Your task to perform on an android device: turn off picture-in-picture Image 0: 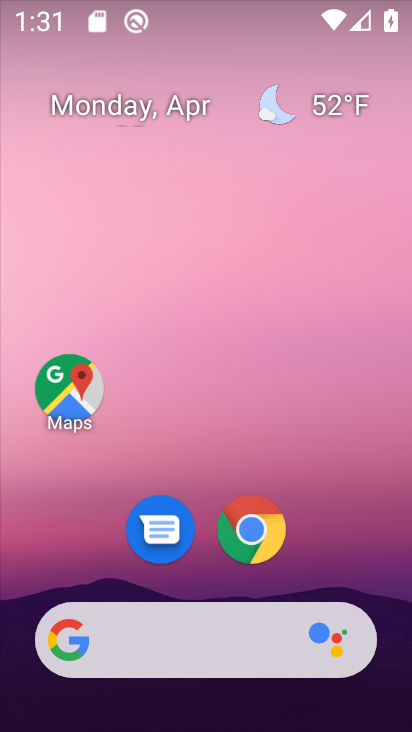
Step 0: click (246, 525)
Your task to perform on an android device: turn off picture-in-picture Image 1: 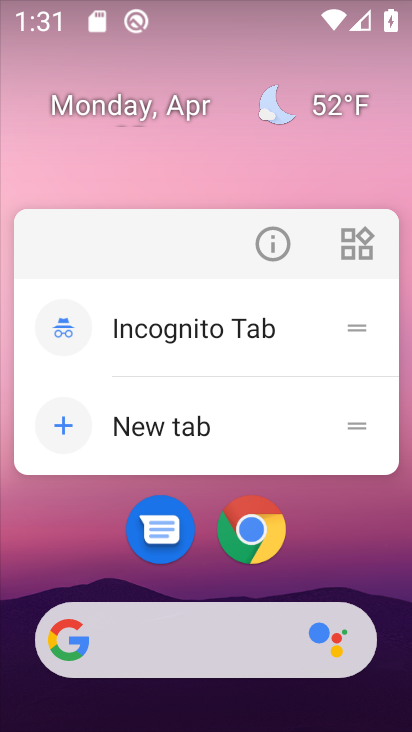
Step 1: click (270, 242)
Your task to perform on an android device: turn off picture-in-picture Image 2: 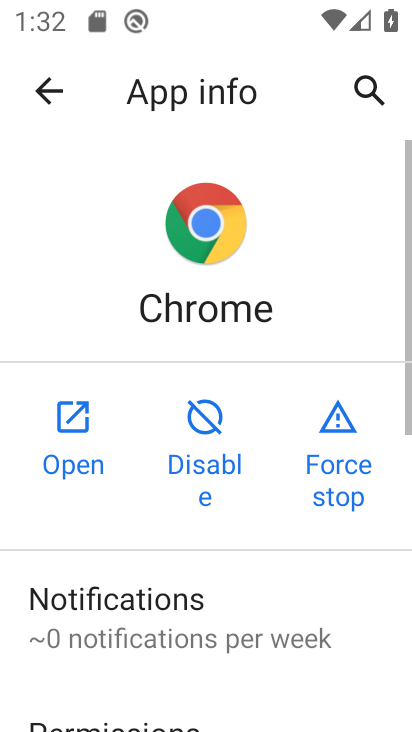
Step 2: drag from (330, 662) to (348, 247)
Your task to perform on an android device: turn off picture-in-picture Image 3: 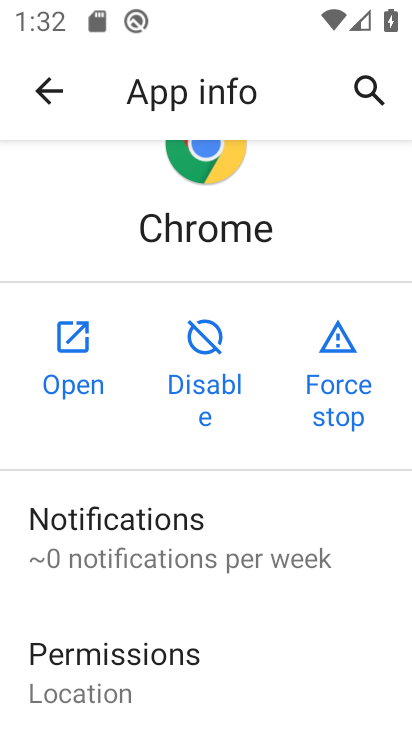
Step 3: drag from (228, 672) to (238, 243)
Your task to perform on an android device: turn off picture-in-picture Image 4: 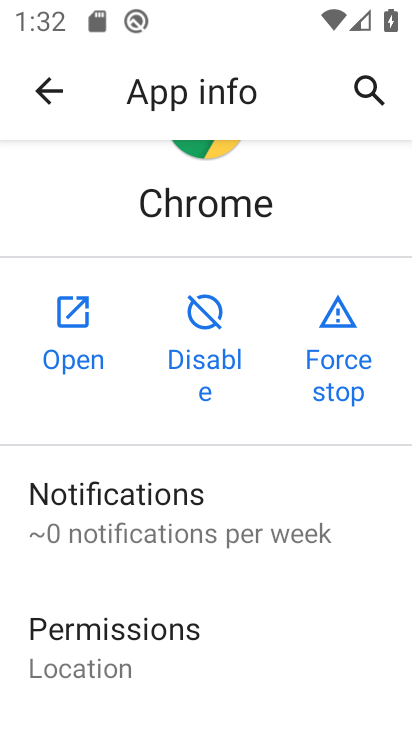
Step 4: drag from (227, 508) to (239, 214)
Your task to perform on an android device: turn off picture-in-picture Image 5: 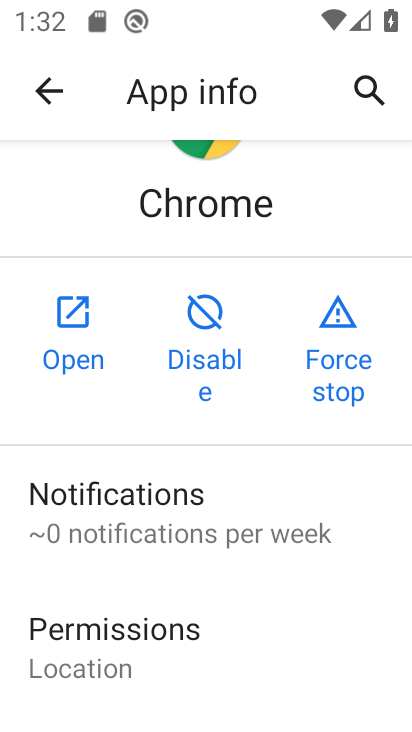
Step 5: drag from (250, 662) to (316, 254)
Your task to perform on an android device: turn off picture-in-picture Image 6: 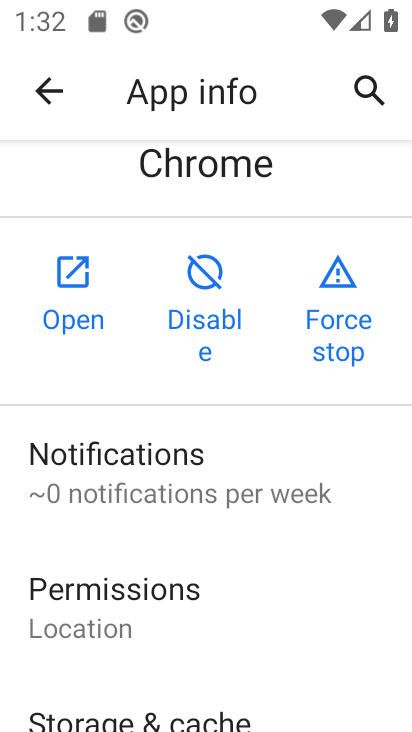
Step 6: drag from (309, 447) to (304, 316)
Your task to perform on an android device: turn off picture-in-picture Image 7: 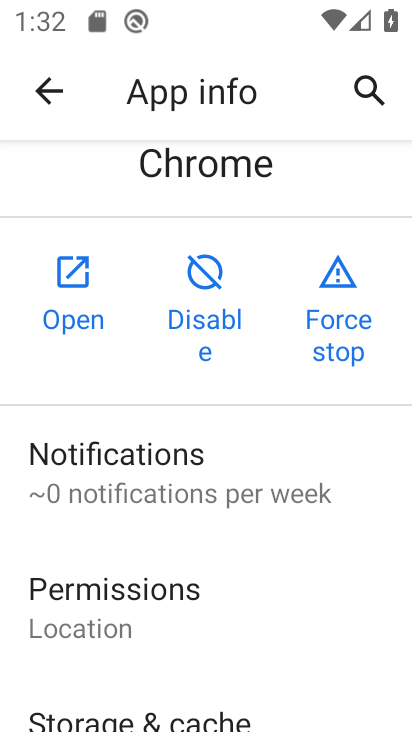
Step 7: drag from (264, 674) to (292, 396)
Your task to perform on an android device: turn off picture-in-picture Image 8: 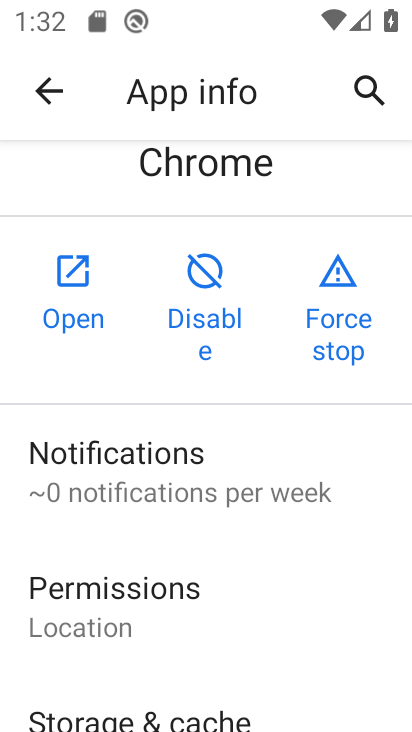
Step 8: drag from (231, 679) to (255, 311)
Your task to perform on an android device: turn off picture-in-picture Image 9: 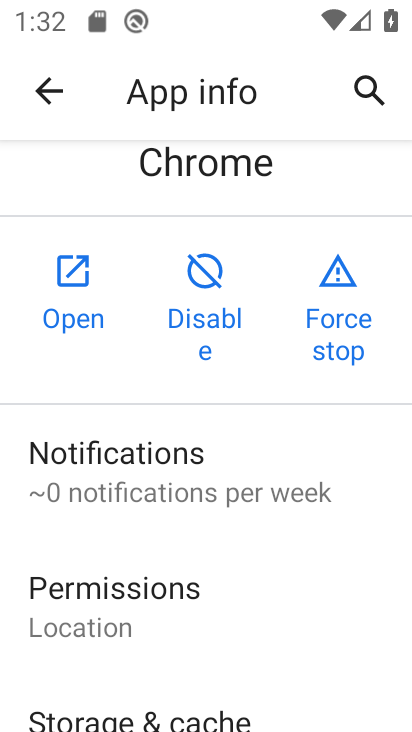
Step 9: drag from (239, 635) to (269, 263)
Your task to perform on an android device: turn off picture-in-picture Image 10: 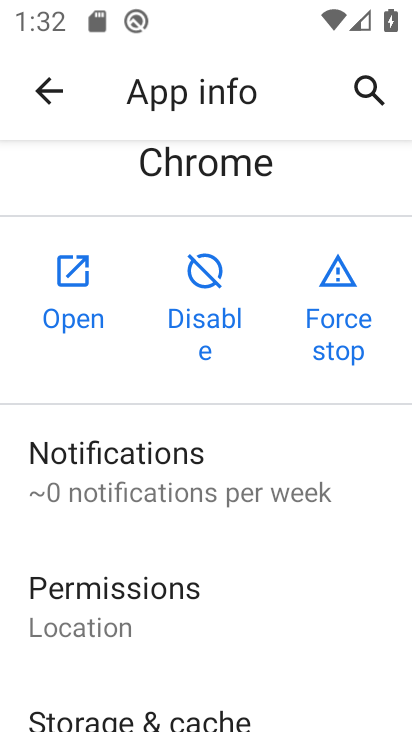
Step 10: drag from (297, 700) to (325, 312)
Your task to perform on an android device: turn off picture-in-picture Image 11: 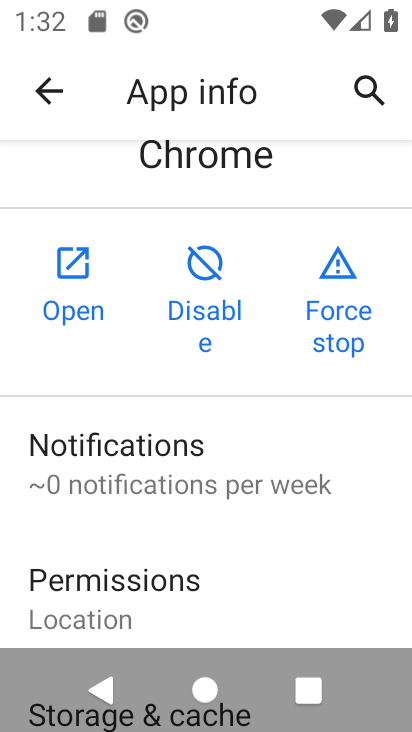
Step 11: drag from (280, 625) to (289, 178)
Your task to perform on an android device: turn off picture-in-picture Image 12: 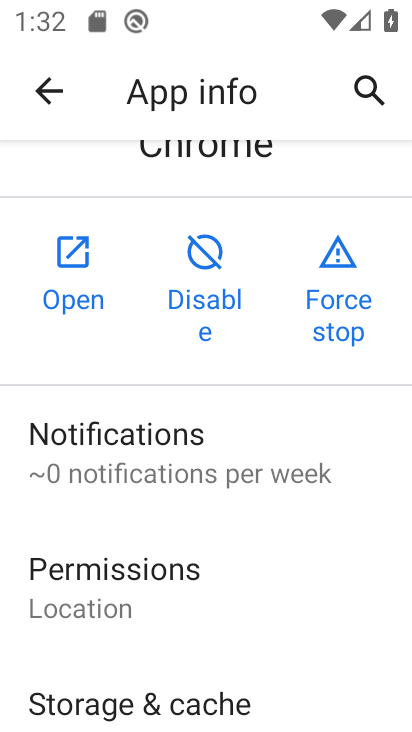
Step 12: drag from (257, 330) to (257, 255)
Your task to perform on an android device: turn off picture-in-picture Image 13: 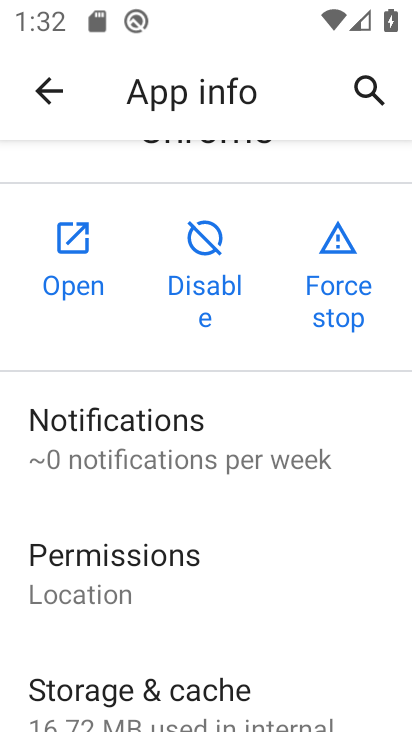
Step 13: drag from (246, 691) to (254, 356)
Your task to perform on an android device: turn off picture-in-picture Image 14: 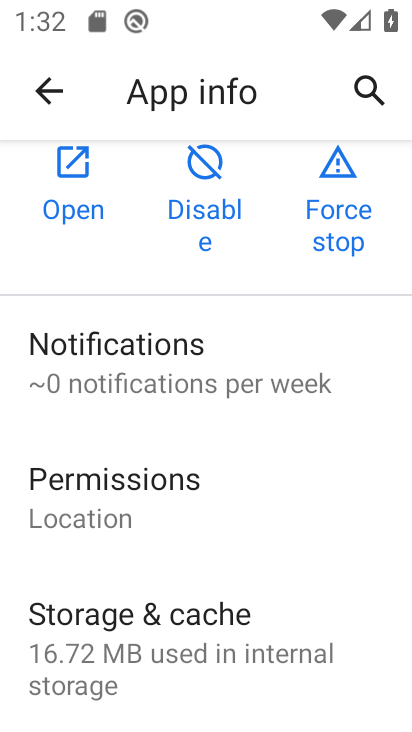
Step 14: click (284, 344)
Your task to perform on an android device: turn off picture-in-picture Image 15: 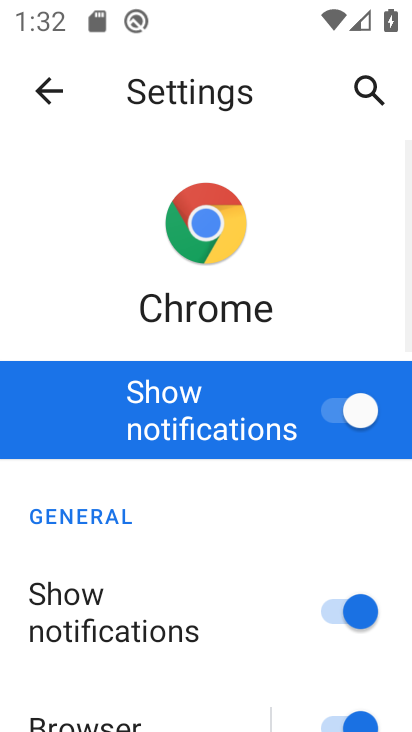
Step 15: click (29, 78)
Your task to perform on an android device: turn off picture-in-picture Image 16: 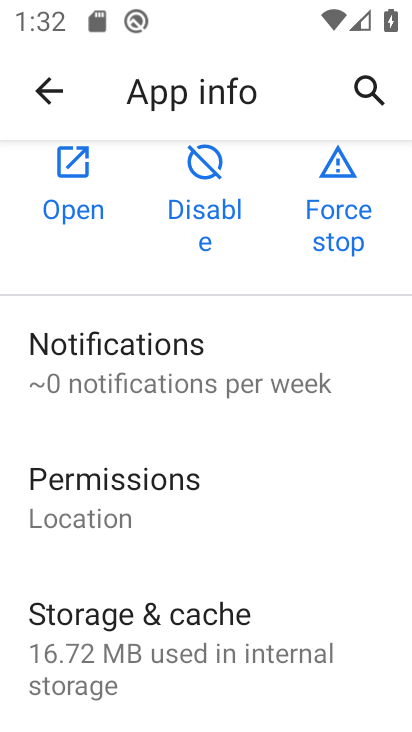
Step 16: drag from (315, 691) to (313, 235)
Your task to perform on an android device: turn off picture-in-picture Image 17: 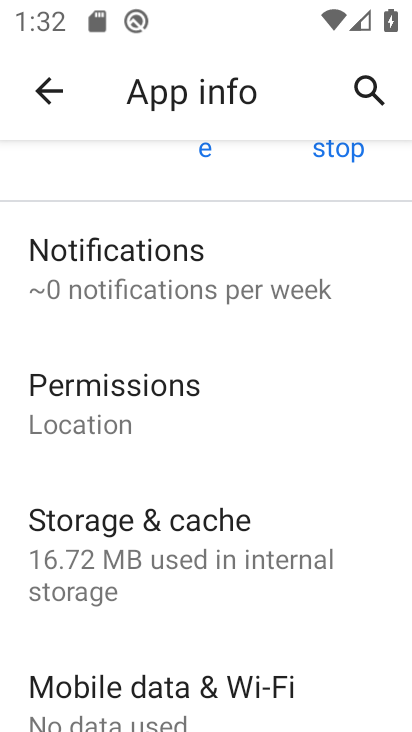
Step 17: drag from (316, 690) to (260, 253)
Your task to perform on an android device: turn off picture-in-picture Image 18: 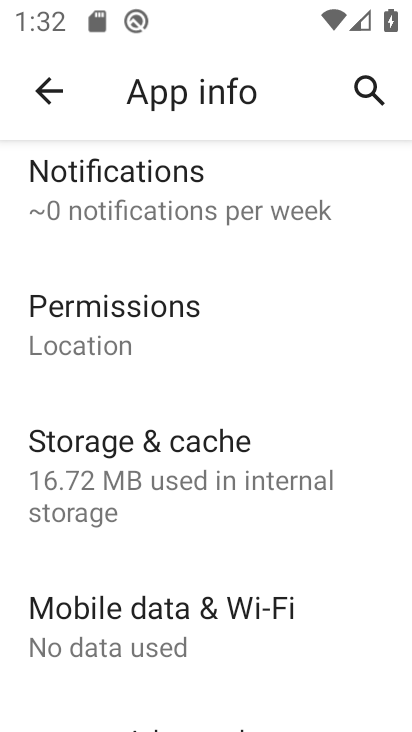
Step 18: click (284, 172)
Your task to perform on an android device: turn off picture-in-picture Image 19: 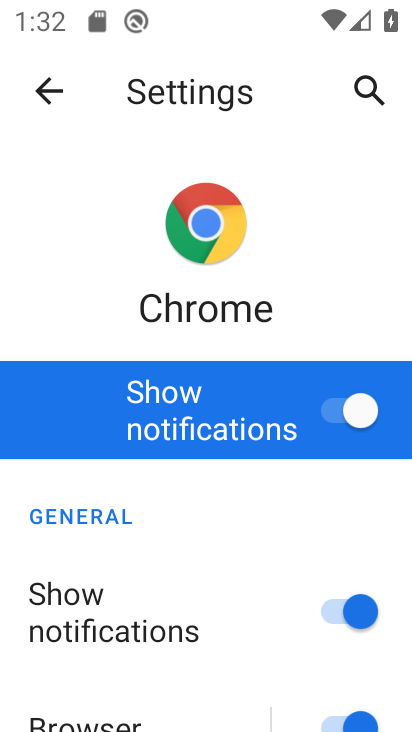
Step 19: click (46, 80)
Your task to perform on an android device: turn off picture-in-picture Image 20: 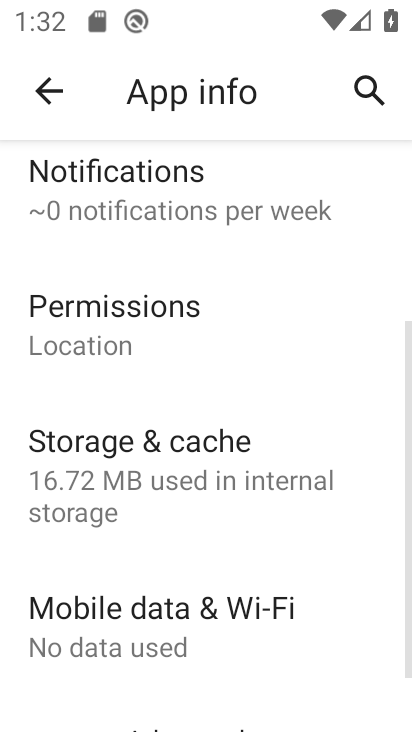
Step 20: drag from (302, 627) to (303, 176)
Your task to perform on an android device: turn off picture-in-picture Image 21: 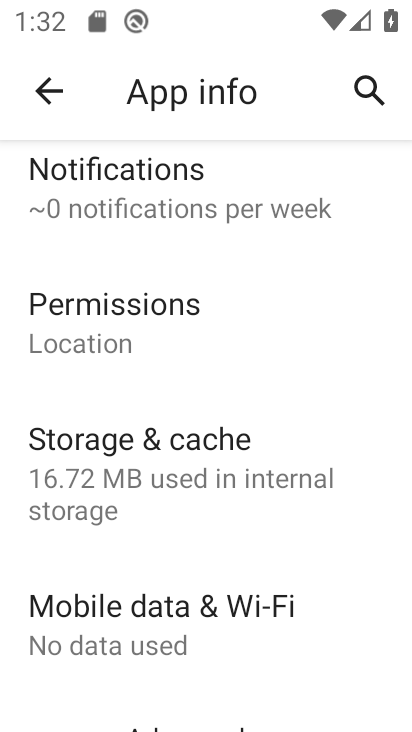
Step 21: drag from (345, 483) to (346, 246)
Your task to perform on an android device: turn off picture-in-picture Image 22: 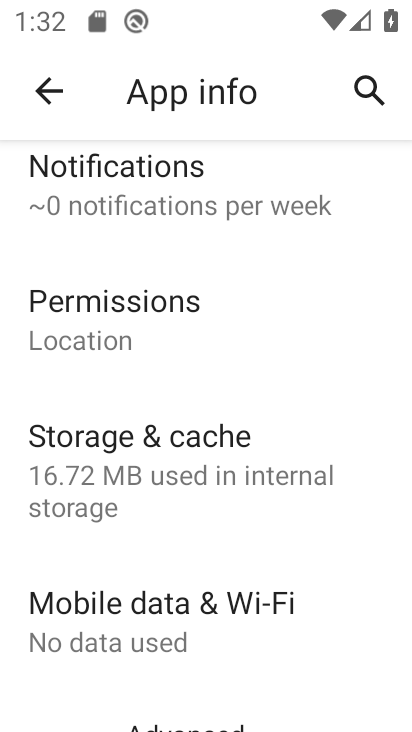
Step 22: drag from (352, 601) to (329, 215)
Your task to perform on an android device: turn off picture-in-picture Image 23: 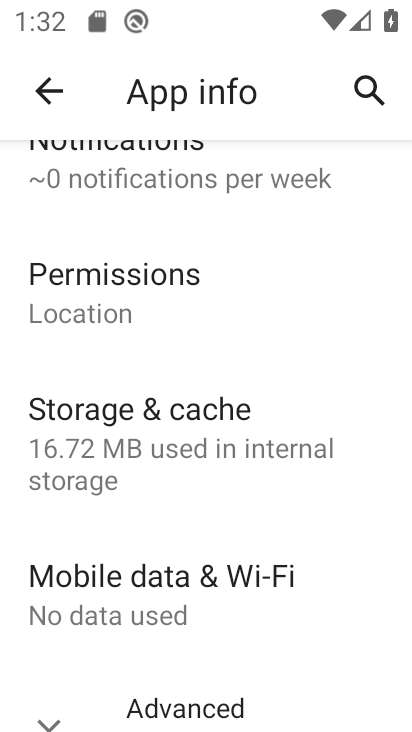
Step 23: drag from (305, 678) to (303, 292)
Your task to perform on an android device: turn off picture-in-picture Image 24: 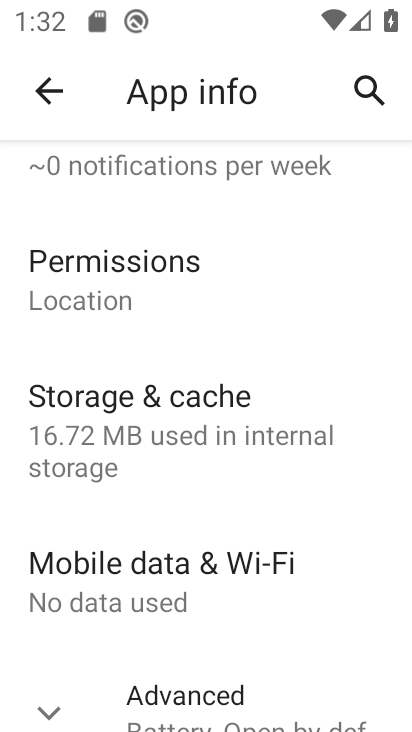
Step 24: click (150, 700)
Your task to perform on an android device: turn off picture-in-picture Image 25: 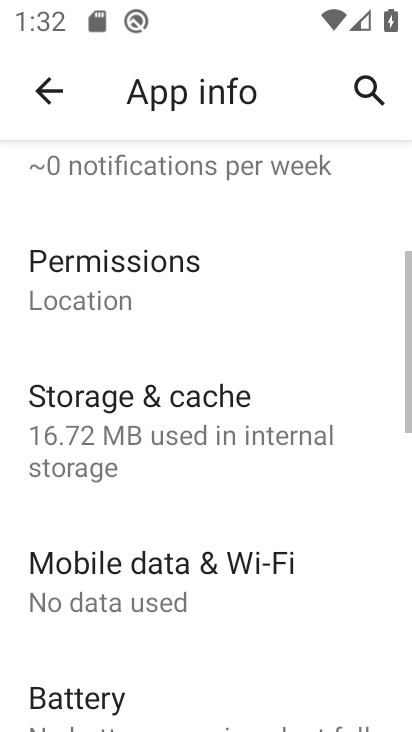
Step 25: drag from (346, 513) to (354, 272)
Your task to perform on an android device: turn off picture-in-picture Image 26: 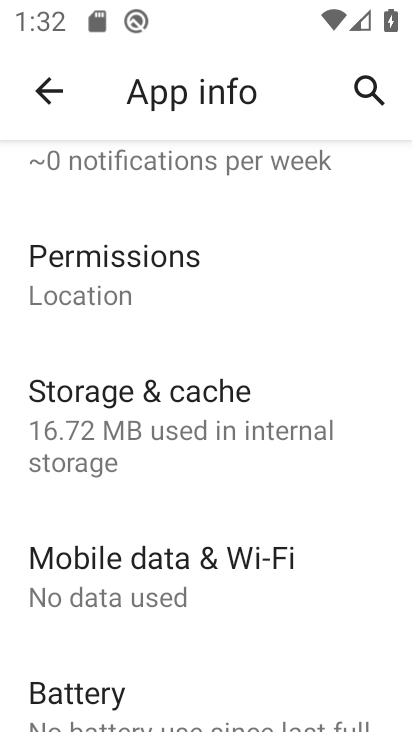
Step 26: drag from (356, 428) to (352, 222)
Your task to perform on an android device: turn off picture-in-picture Image 27: 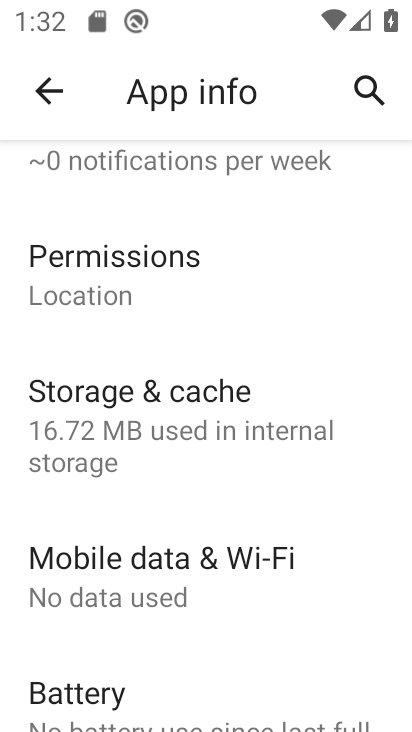
Step 27: drag from (349, 380) to (320, 238)
Your task to perform on an android device: turn off picture-in-picture Image 28: 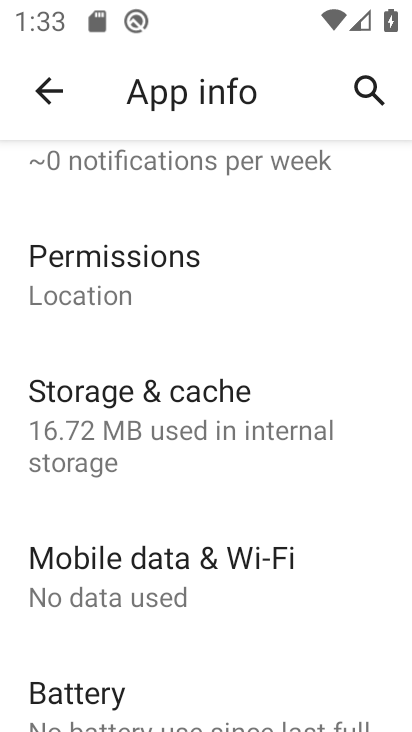
Step 28: drag from (346, 570) to (303, 226)
Your task to perform on an android device: turn off picture-in-picture Image 29: 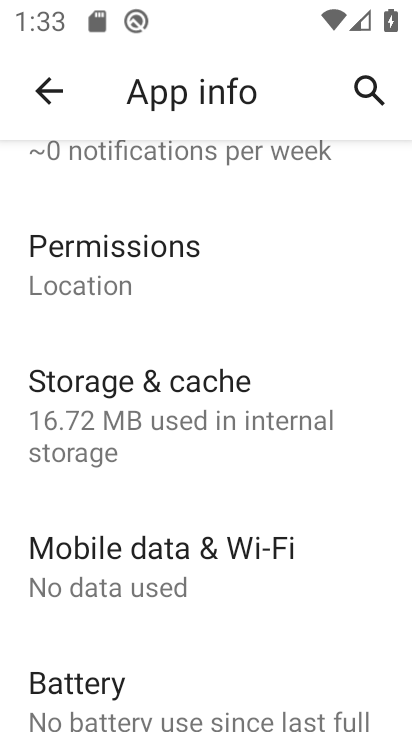
Step 29: drag from (323, 650) to (300, 431)
Your task to perform on an android device: turn off picture-in-picture Image 30: 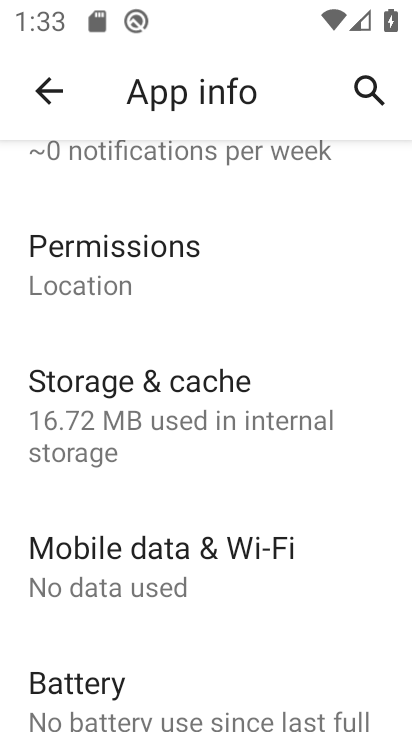
Step 30: click (331, 224)
Your task to perform on an android device: turn off picture-in-picture Image 31: 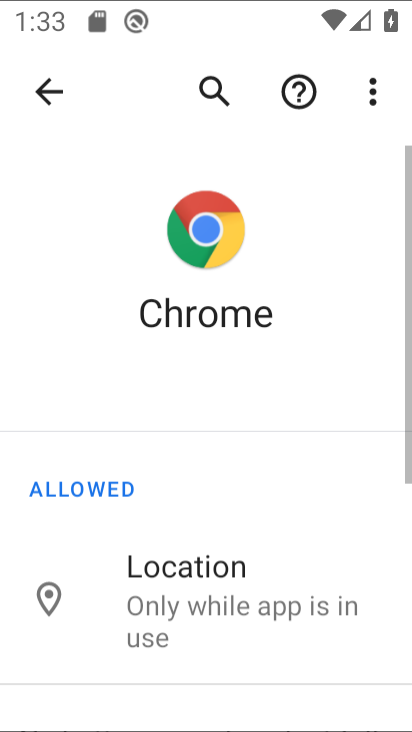
Step 31: drag from (323, 499) to (336, 179)
Your task to perform on an android device: turn off picture-in-picture Image 32: 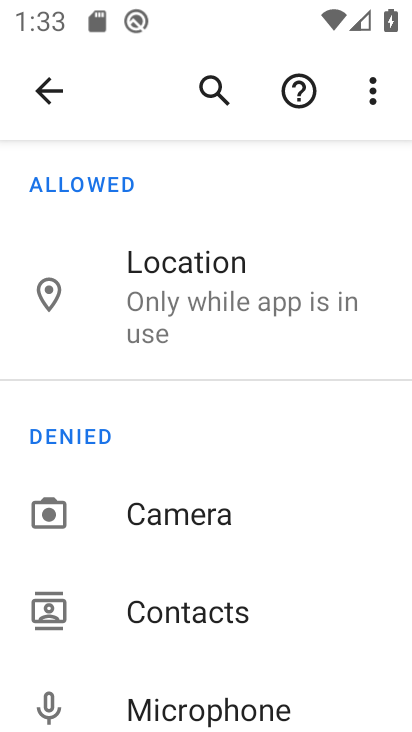
Step 32: click (30, 82)
Your task to perform on an android device: turn off picture-in-picture Image 33: 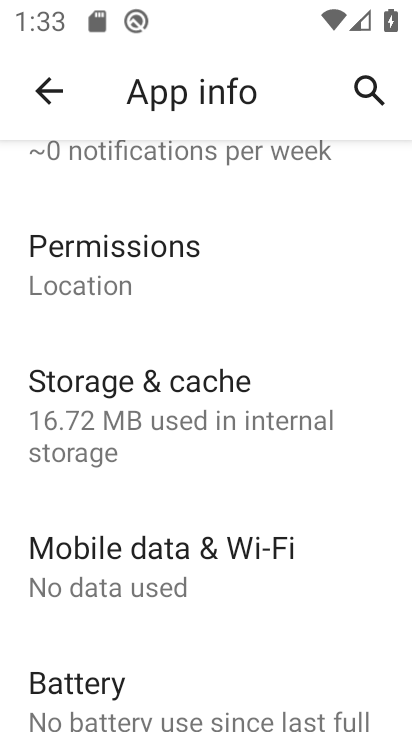
Step 33: drag from (362, 651) to (377, 237)
Your task to perform on an android device: turn off picture-in-picture Image 34: 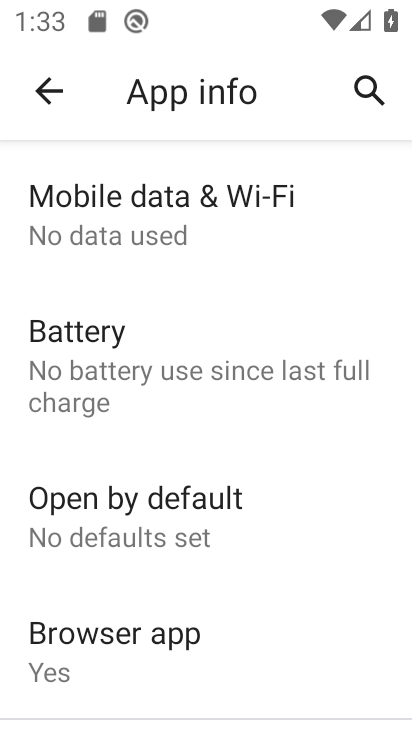
Step 34: click (291, 252)
Your task to perform on an android device: turn off picture-in-picture Image 35: 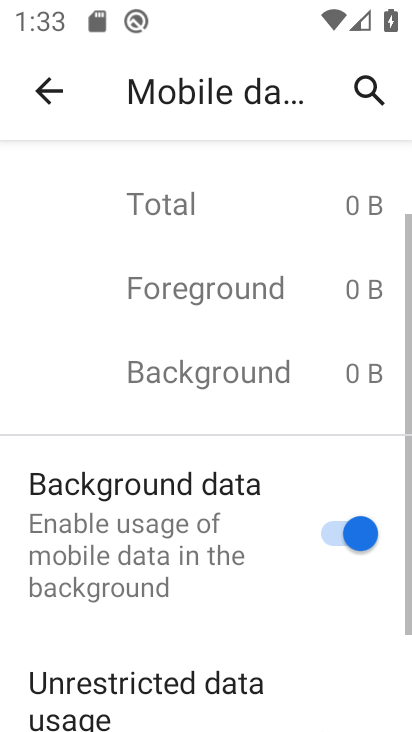
Step 35: click (45, 91)
Your task to perform on an android device: turn off picture-in-picture Image 36: 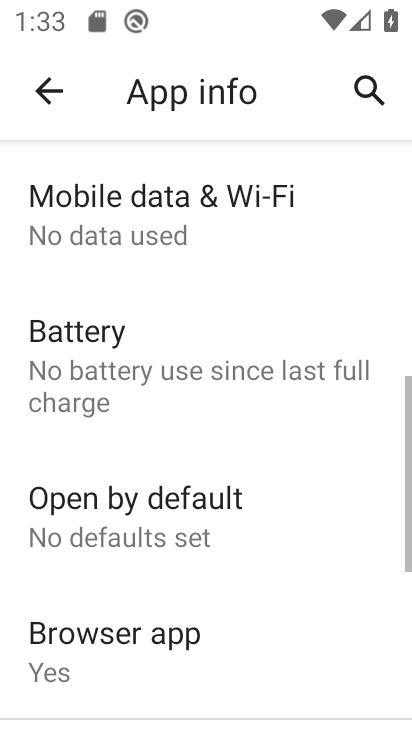
Step 36: click (354, 336)
Your task to perform on an android device: turn off picture-in-picture Image 37: 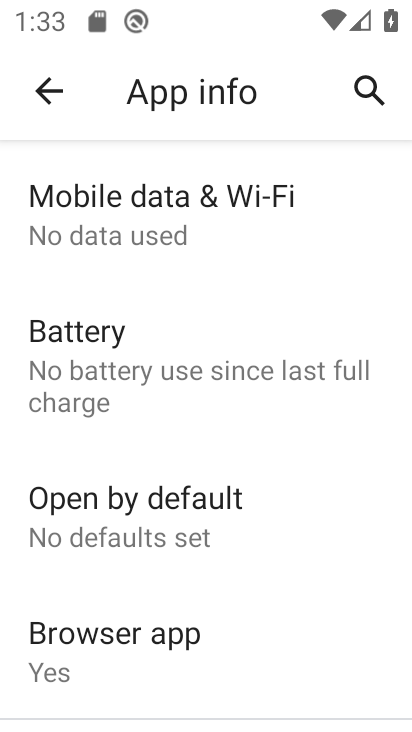
Step 37: drag from (302, 620) to (308, 240)
Your task to perform on an android device: turn off picture-in-picture Image 38: 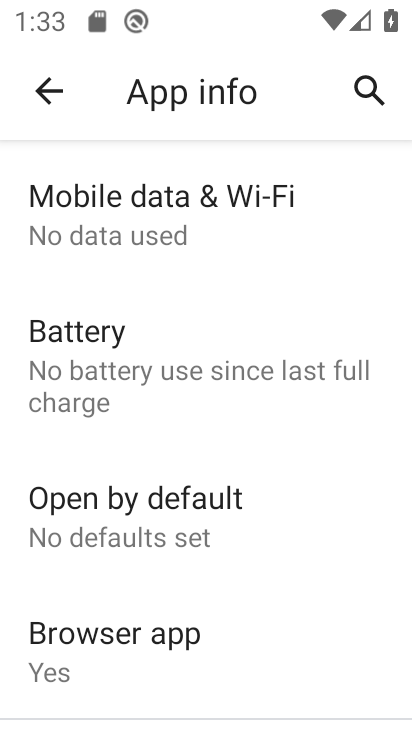
Step 38: drag from (296, 401) to (294, 295)
Your task to perform on an android device: turn off picture-in-picture Image 39: 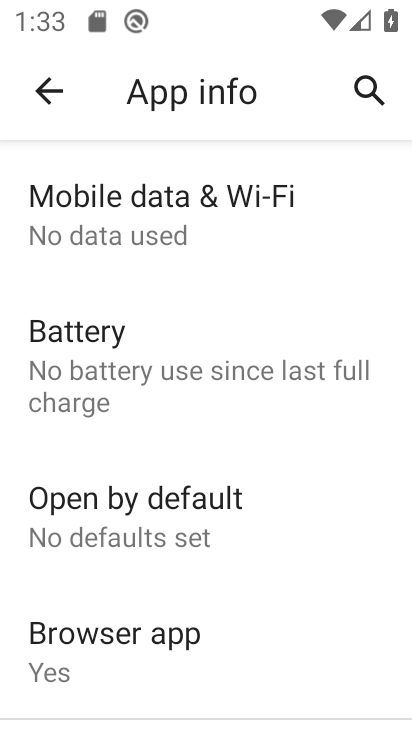
Step 39: drag from (296, 636) to (299, 486)
Your task to perform on an android device: turn off picture-in-picture Image 40: 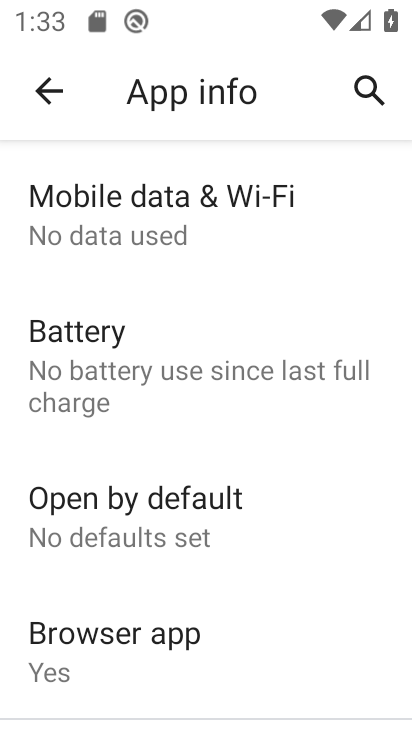
Step 40: drag from (319, 446) to (308, 264)
Your task to perform on an android device: turn off picture-in-picture Image 41: 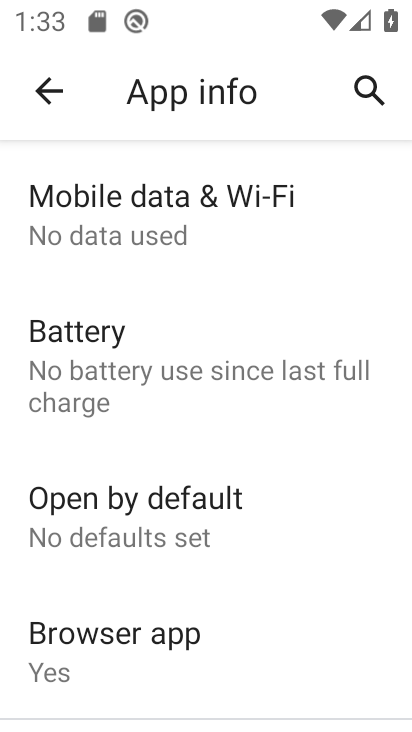
Step 41: drag from (286, 662) to (329, 319)
Your task to perform on an android device: turn off picture-in-picture Image 42: 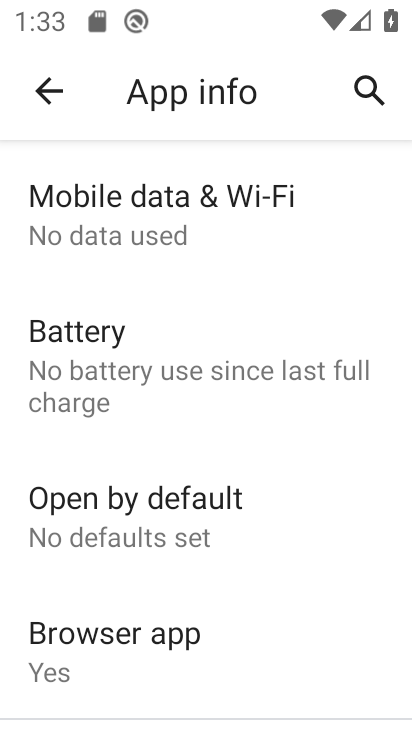
Step 42: drag from (288, 636) to (319, 231)
Your task to perform on an android device: turn off picture-in-picture Image 43: 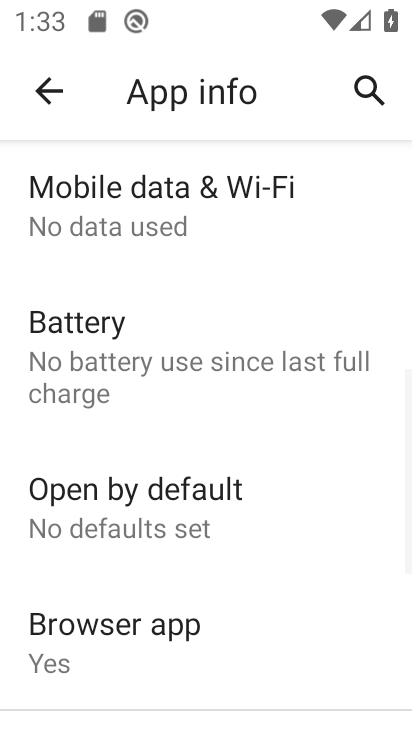
Step 43: drag from (275, 685) to (298, 351)
Your task to perform on an android device: turn off picture-in-picture Image 44: 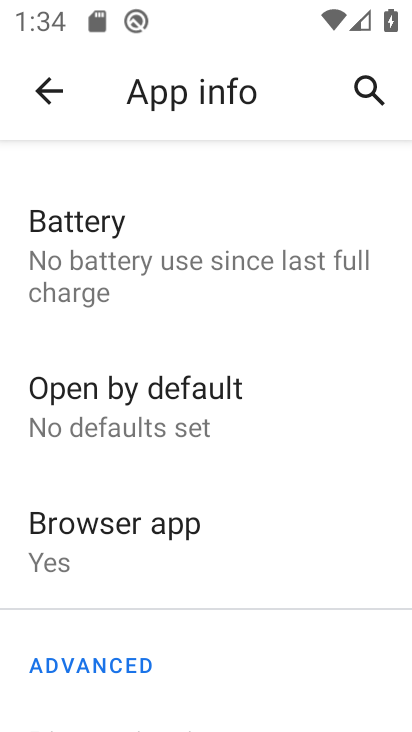
Step 44: drag from (292, 674) to (323, 207)
Your task to perform on an android device: turn off picture-in-picture Image 45: 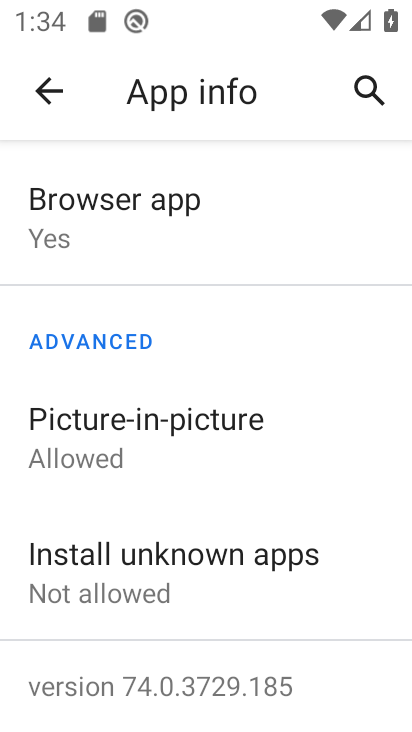
Step 45: click (66, 420)
Your task to perform on an android device: turn off picture-in-picture Image 46: 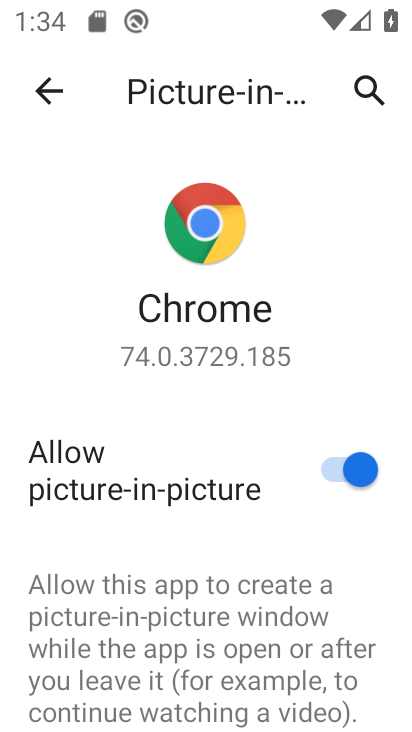
Step 46: click (327, 473)
Your task to perform on an android device: turn off picture-in-picture Image 47: 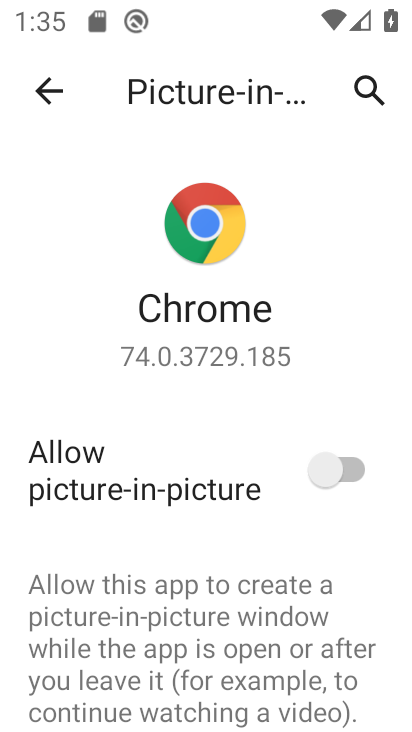
Step 47: click (367, 107)
Your task to perform on an android device: turn off picture-in-picture Image 48: 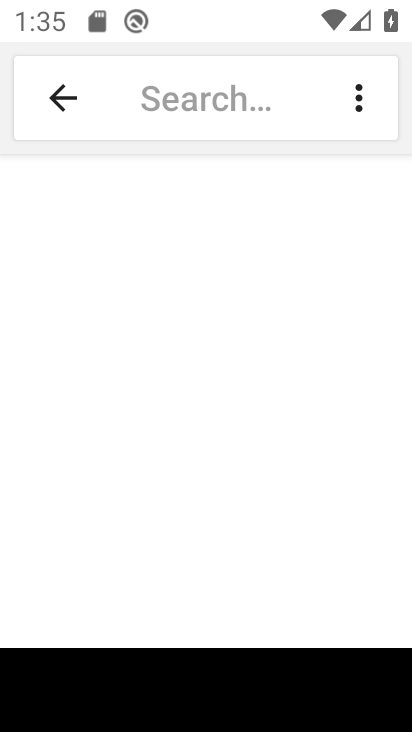
Step 48: task complete